Your task to perform on an android device: Go to internet settings Image 0: 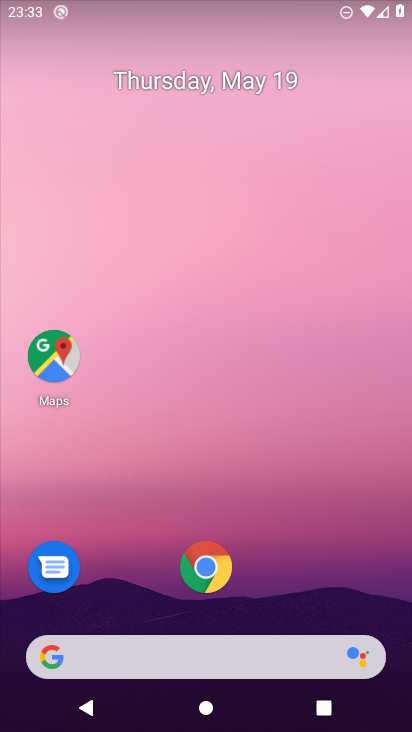
Step 0: drag from (272, 614) to (279, 103)
Your task to perform on an android device: Go to internet settings Image 1: 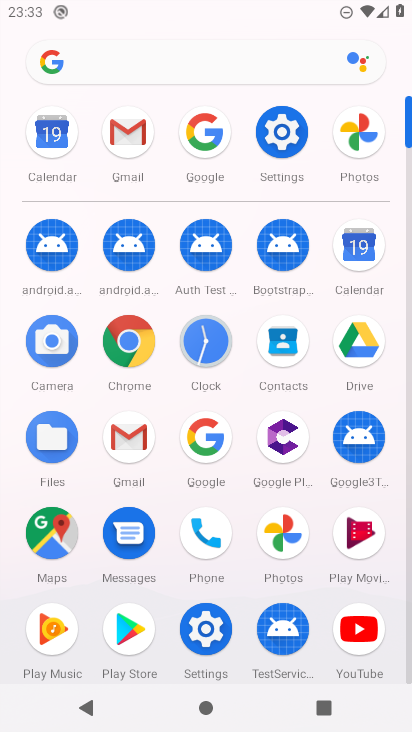
Step 1: click (270, 128)
Your task to perform on an android device: Go to internet settings Image 2: 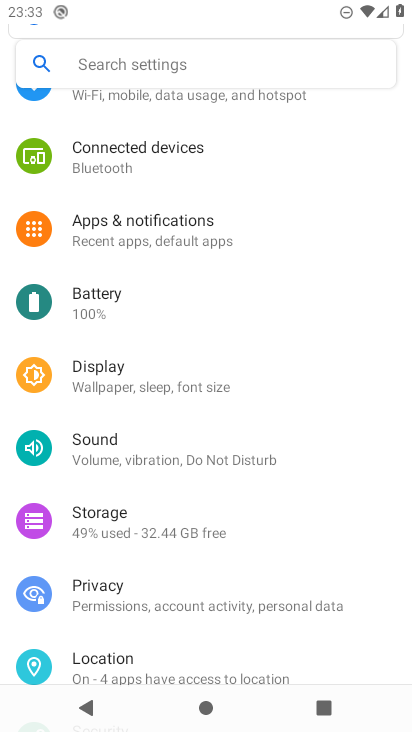
Step 2: drag from (166, 156) to (183, 616)
Your task to perform on an android device: Go to internet settings Image 3: 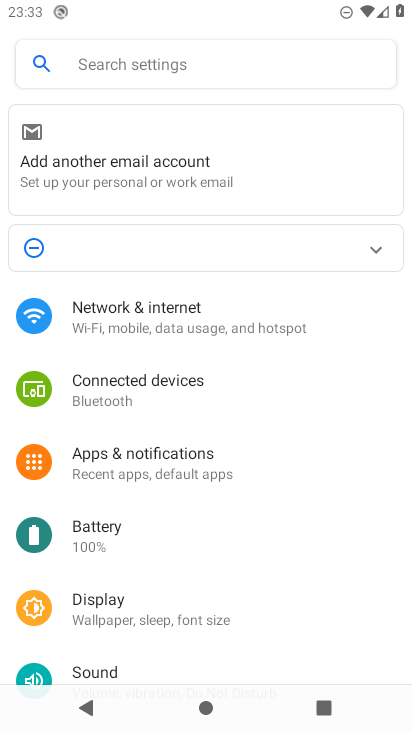
Step 3: click (181, 314)
Your task to perform on an android device: Go to internet settings Image 4: 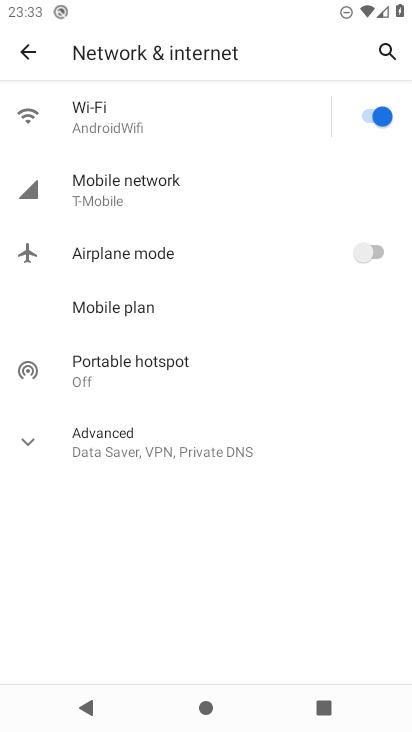
Step 4: click (30, 433)
Your task to perform on an android device: Go to internet settings Image 5: 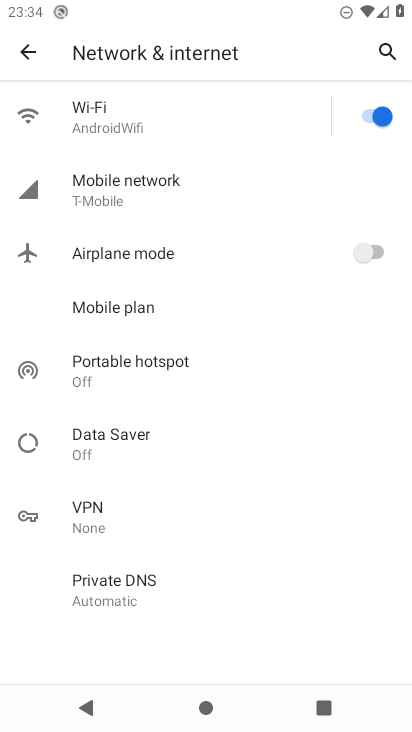
Step 5: task complete